Your task to perform on an android device: See recent photos Image 0: 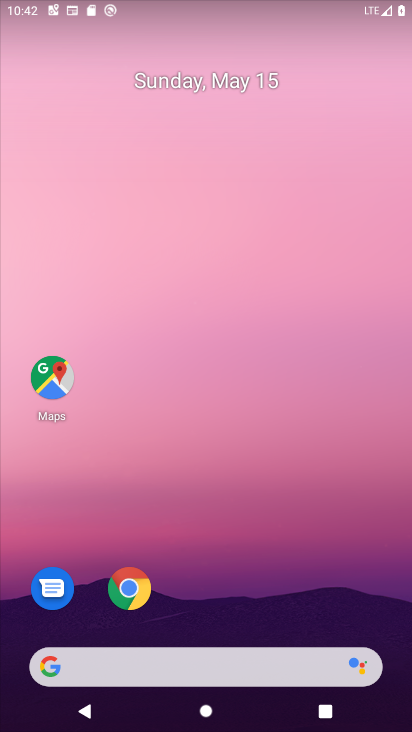
Step 0: drag from (292, 589) to (273, 68)
Your task to perform on an android device: See recent photos Image 1: 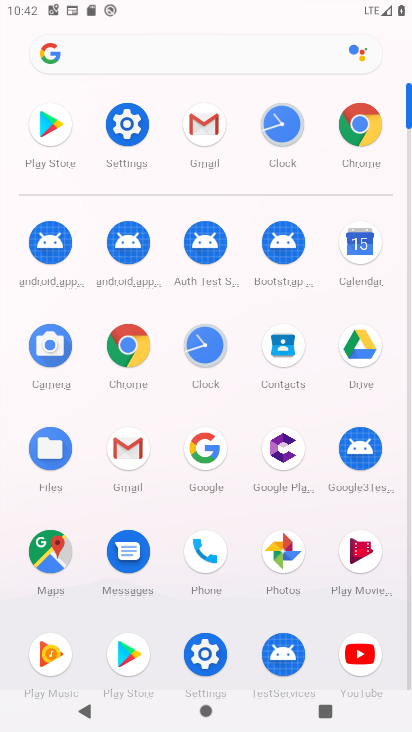
Step 1: click (276, 541)
Your task to perform on an android device: See recent photos Image 2: 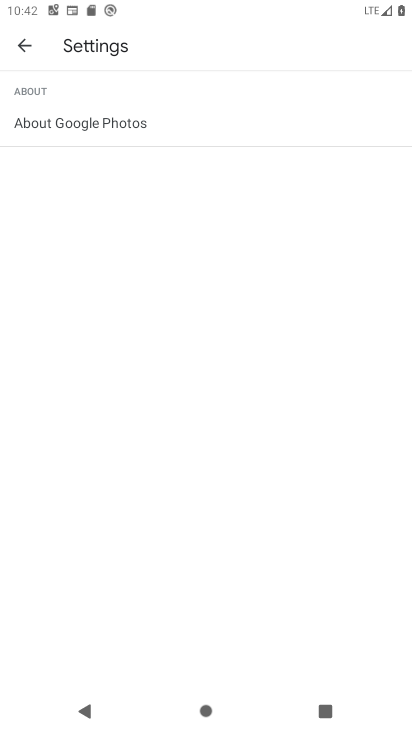
Step 2: click (34, 40)
Your task to perform on an android device: See recent photos Image 3: 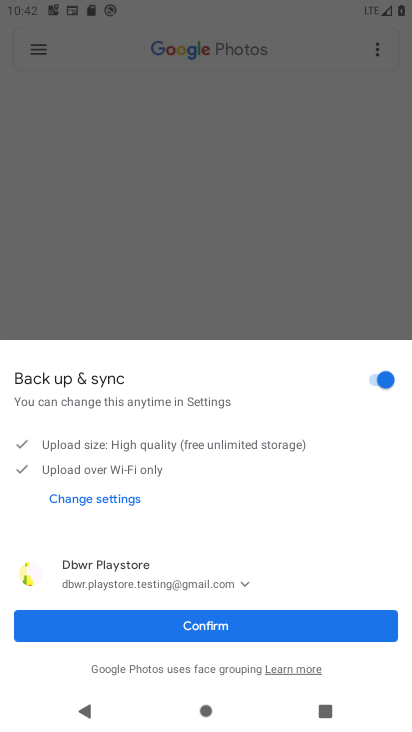
Step 3: click (284, 632)
Your task to perform on an android device: See recent photos Image 4: 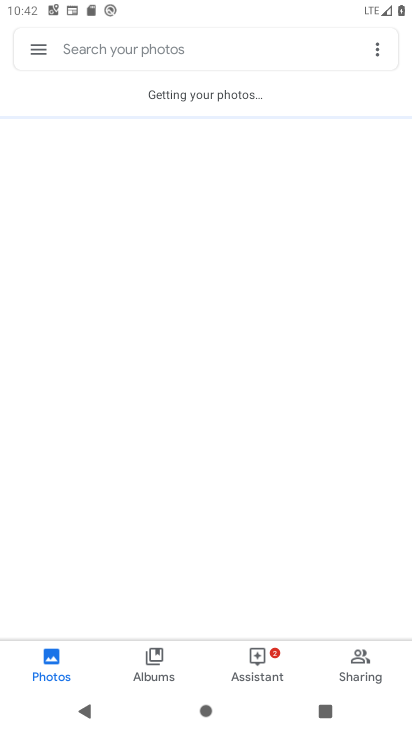
Step 4: click (43, 48)
Your task to perform on an android device: See recent photos Image 5: 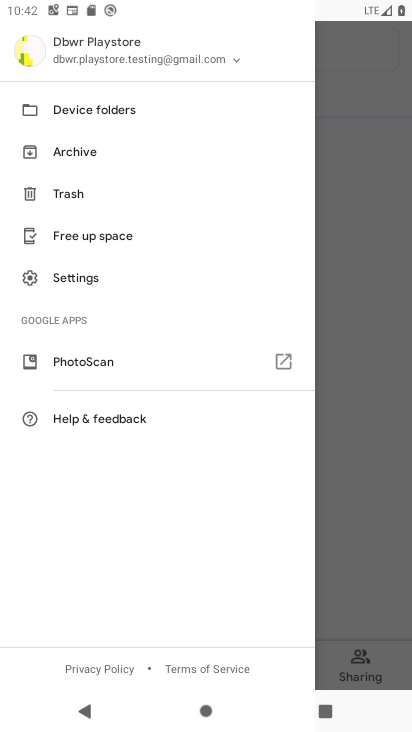
Step 5: click (348, 66)
Your task to perform on an android device: See recent photos Image 6: 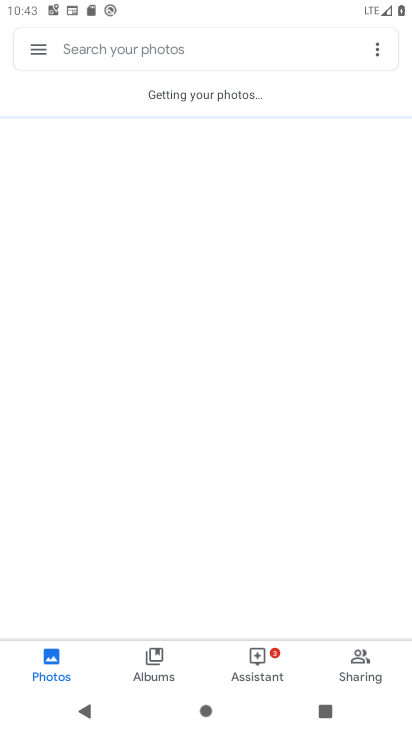
Step 6: click (188, 54)
Your task to perform on an android device: See recent photos Image 7: 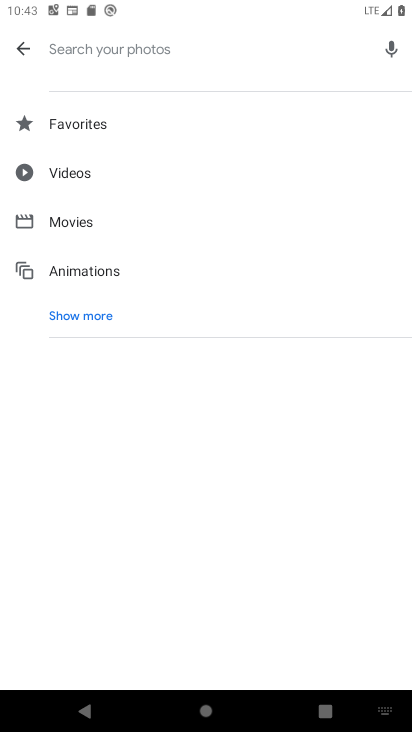
Step 7: click (99, 314)
Your task to perform on an android device: See recent photos Image 8: 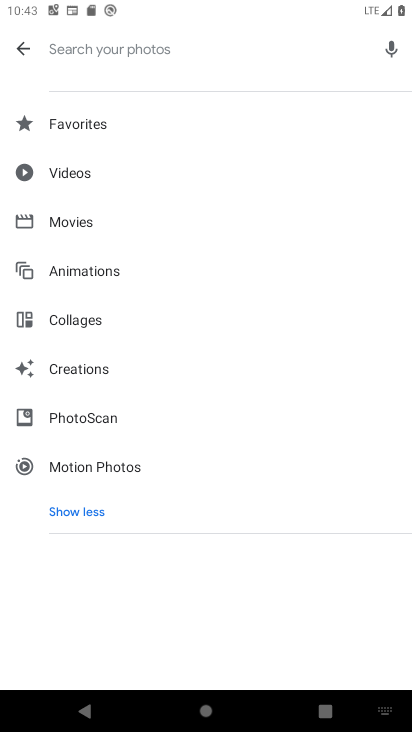
Step 8: type "recent "
Your task to perform on an android device: See recent photos Image 9: 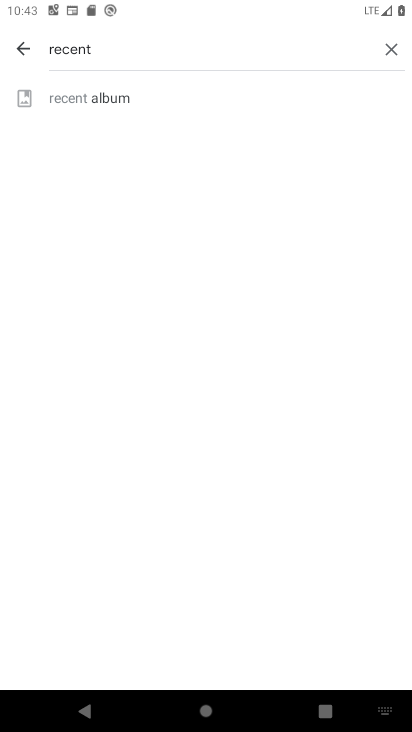
Step 9: click (133, 99)
Your task to perform on an android device: See recent photos Image 10: 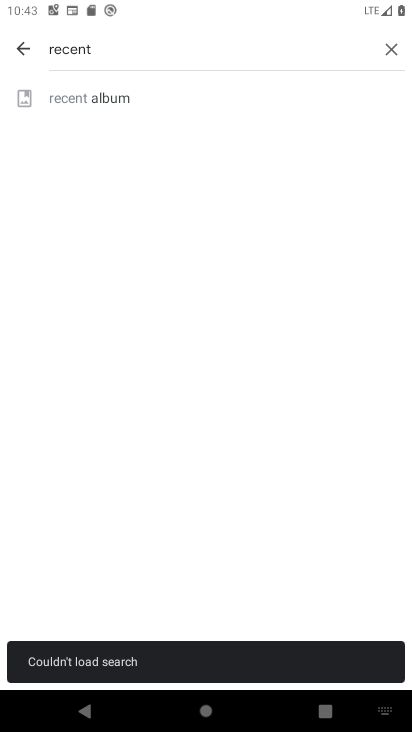
Step 10: click (133, 99)
Your task to perform on an android device: See recent photos Image 11: 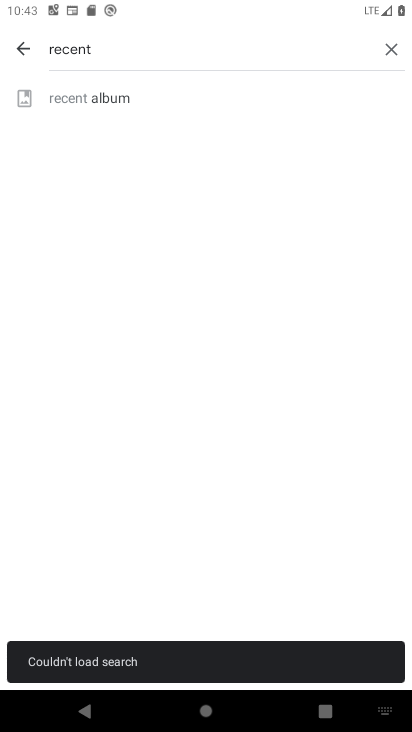
Step 11: task complete